Your task to perform on an android device: toggle airplane mode Image 0: 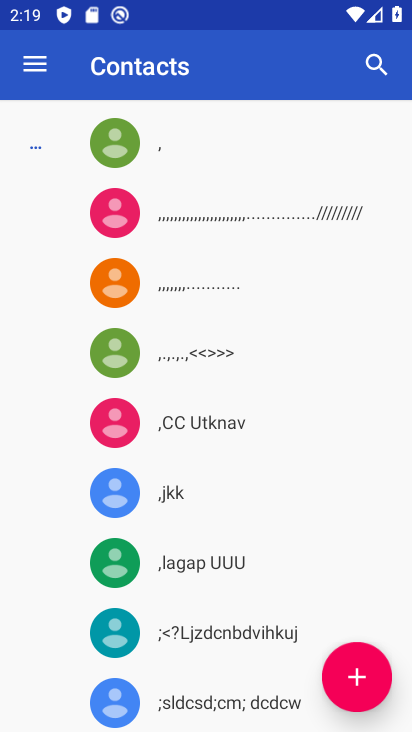
Step 0: click (385, 614)
Your task to perform on an android device: toggle airplane mode Image 1: 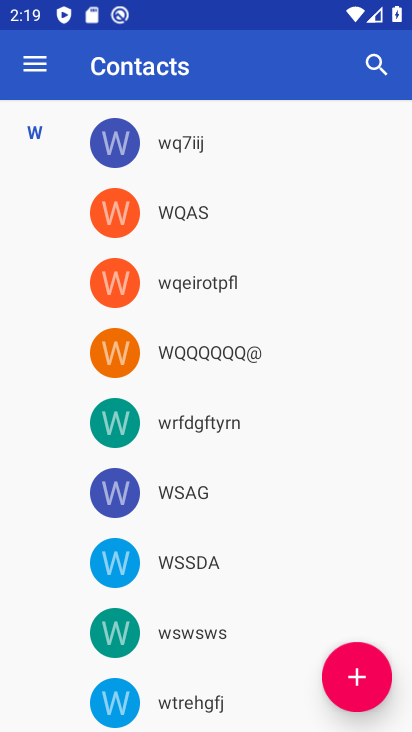
Step 1: press home button
Your task to perform on an android device: toggle airplane mode Image 2: 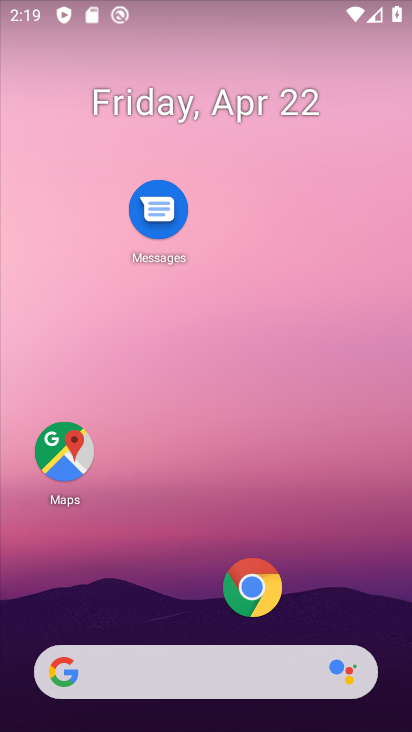
Step 2: drag from (171, 587) to (268, 49)
Your task to perform on an android device: toggle airplane mode Image 3: 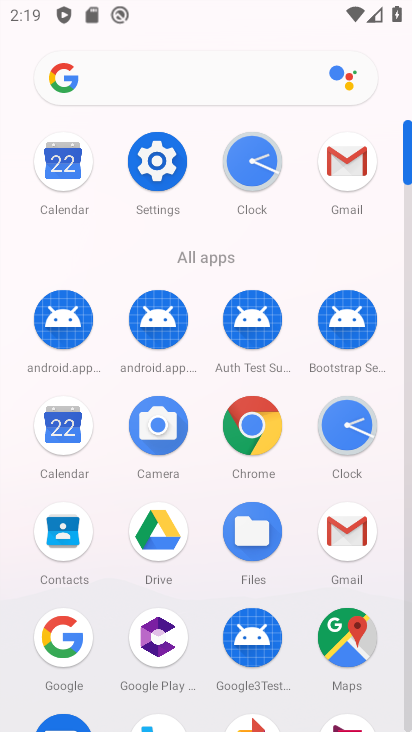
Step 3: click (162, 166)
Your task to perform on an android device: toggle airplane mode Image 4: 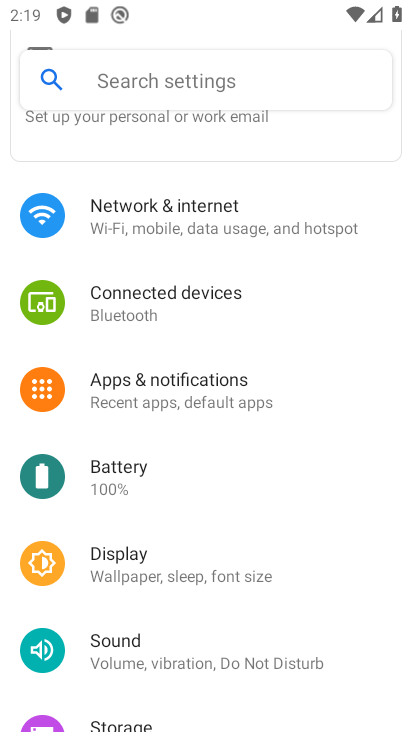
Step 4: click (204, 213)
Your task to perform on an android device: toggle airplane mode Image 5: 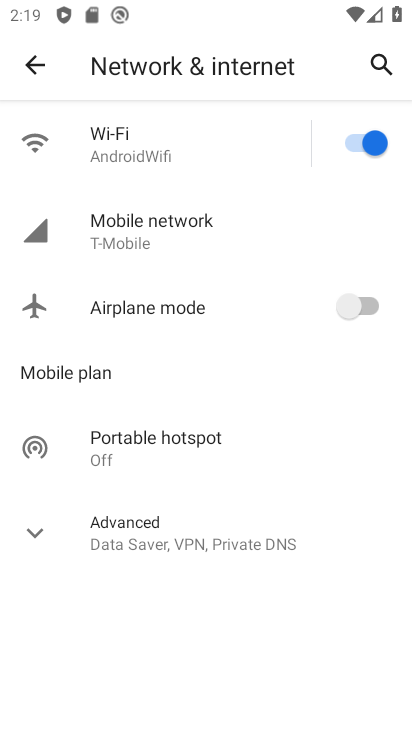
Step 5: click (348, 305)
Your task to perform on an android device: toggle airplane mode Image 6: 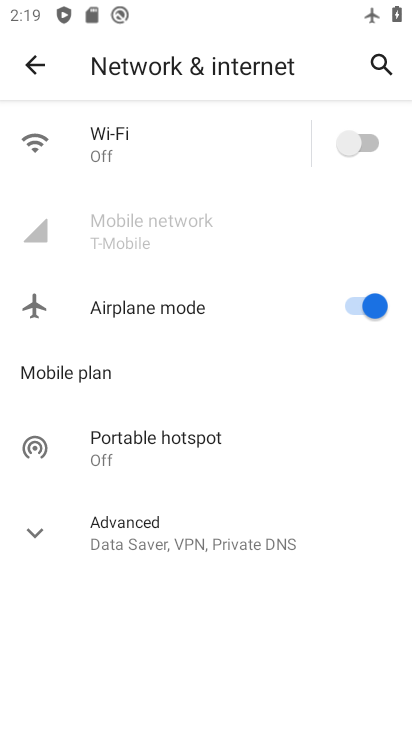
Step 6: task complete